Your task to perform on an android device: turn off smart reply in the gmail app Image 0: 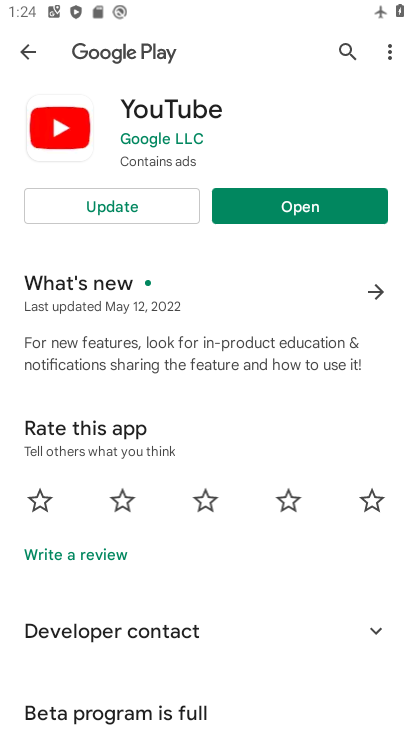
Step 0: press home button
Your task to perform on an android device: turn off smart reply in the gmail app Image 1: 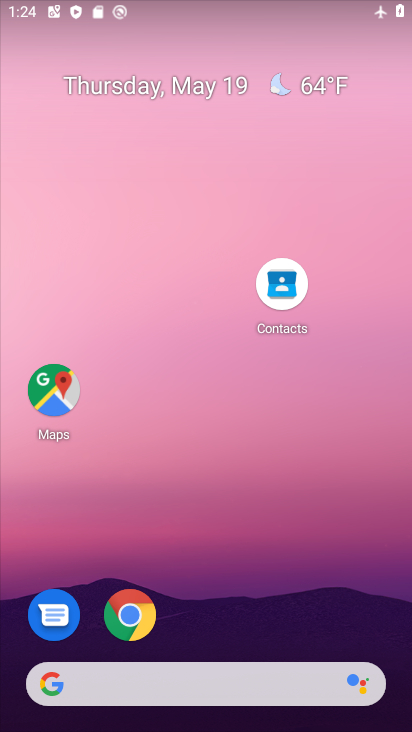
Step 1: drag from (232, 636) to (262, 152)
Your task to perform on an android device: turn off smart reply in the gmail app Image 2: 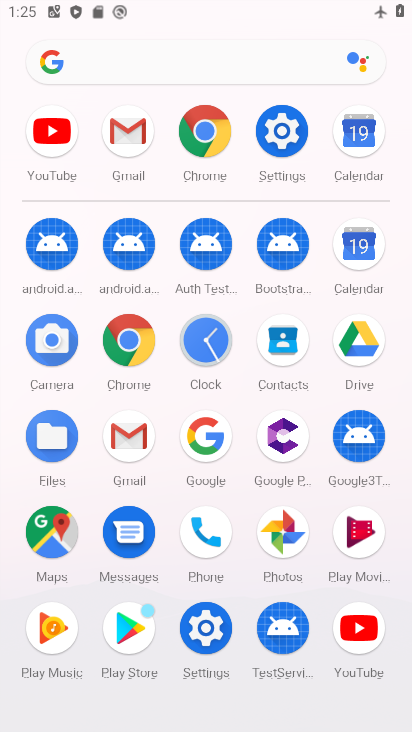
Step 2: click (122, 457)
Your task to perform on an android device: turn off smart reply in the gmail app Image 3: 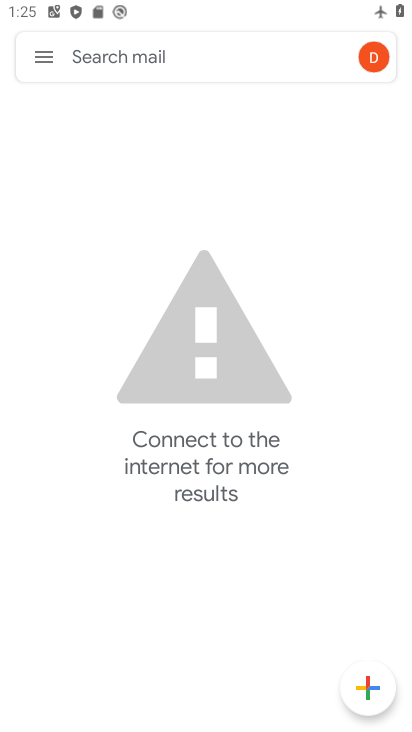
Step 3: click (44, 71)
Your task to perform on an android device: turn off smart reply in the gmail app Image 4: 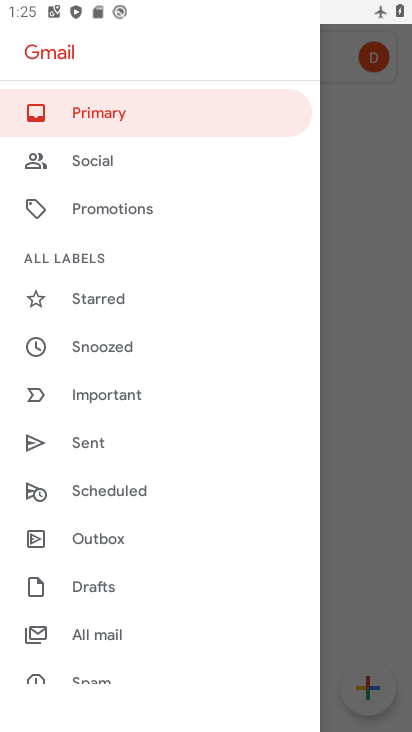
Step 4: drag from (217, 589) to (199, 286)
Your task to perform on an android device: turn off smart reply in the gmail app Image 5: 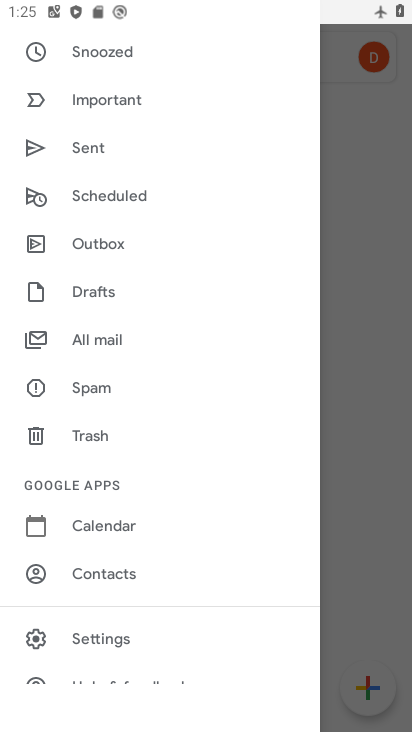
Step 5: click (152, 624)
Your task to perform on an android device: turn off smart reply in the gmail app Image 6: 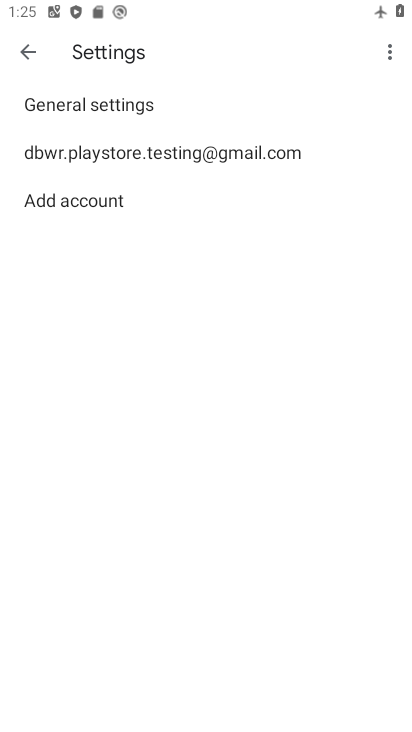
Step 6: click (173, 171)
Your task to perform on an android device: turn off smart reply in the gmail app Image 7: 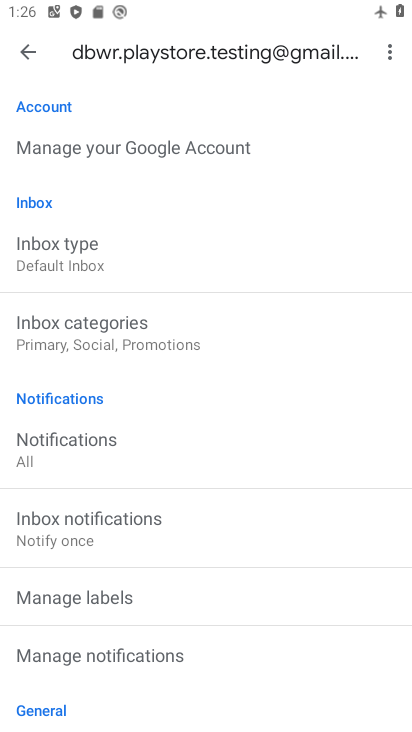
Step 7: drag from (113, 453) to (222, 245)
Your task to perform on an android device: turn off smart reply in the gmail app Image 8: 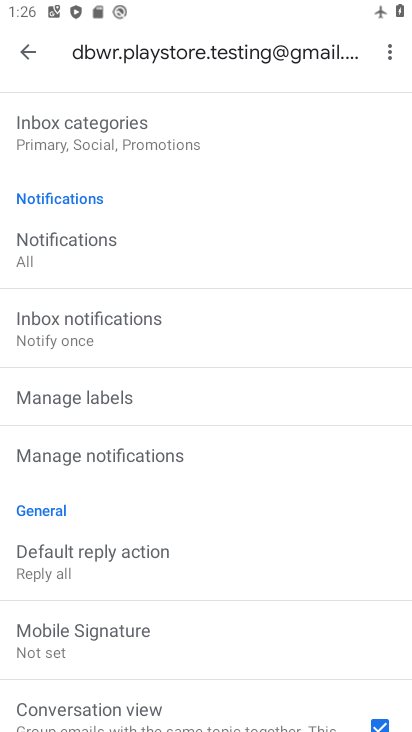
Step 8: drag from (141, 509) to (200, 307)
Your task to perform on an android device: turn off smart reply in the gmail app Image 9: 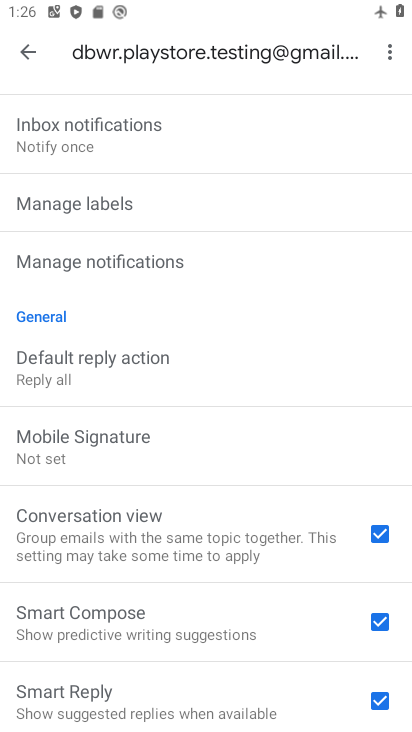
Step 9: drag from (134, 514) to (187, 261)
Your task to perform on an android device: turn off smart reply in the gmail app Image 10: 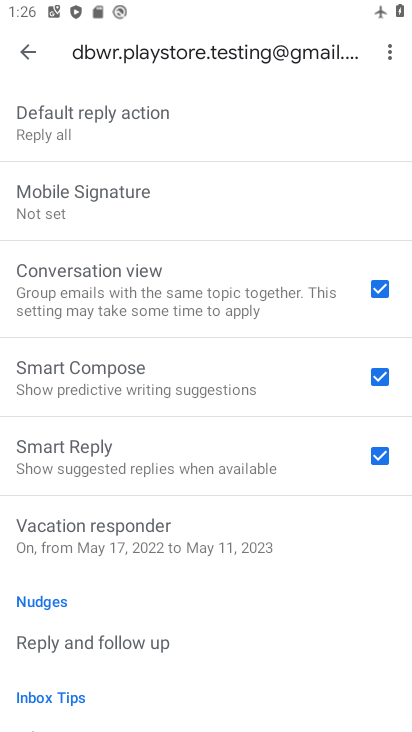
Step 10: click (372, 454)
Your task to perform on an android device: turn off smart reply in the gmail app Image 11: 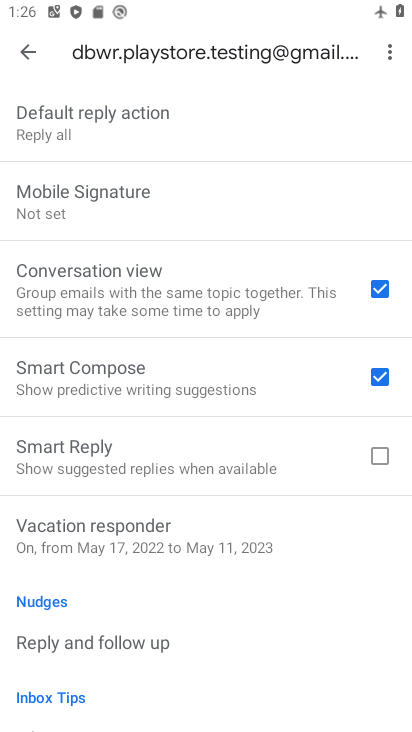
Step 11: task complete